Your task to perform on an android device: Do I have any events this weekend? Image 0: 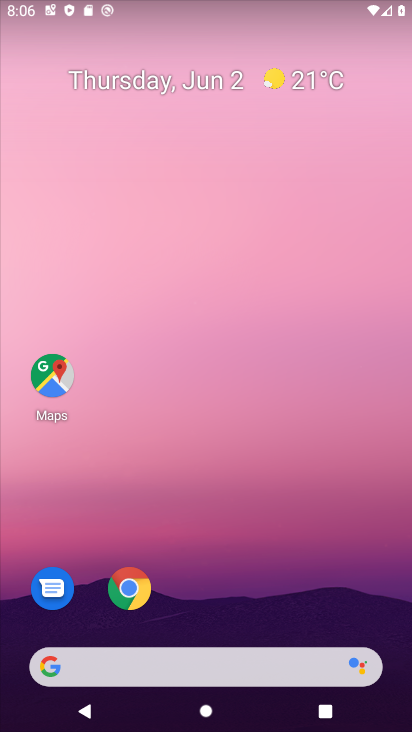
Step 0: drag from (171, 668) to (137, 138)
Your task to perform on an android device: Do I have any events this weekend? Image 1: 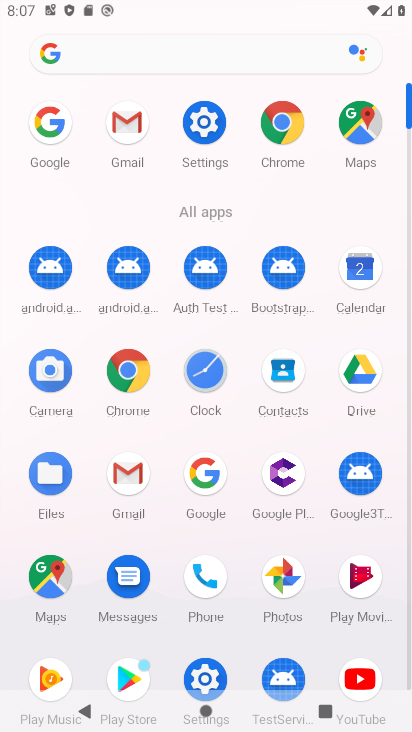
Step 1: click (349, 285)
Your task to perform on an android device: Do I have any events this weekend? Image 2: 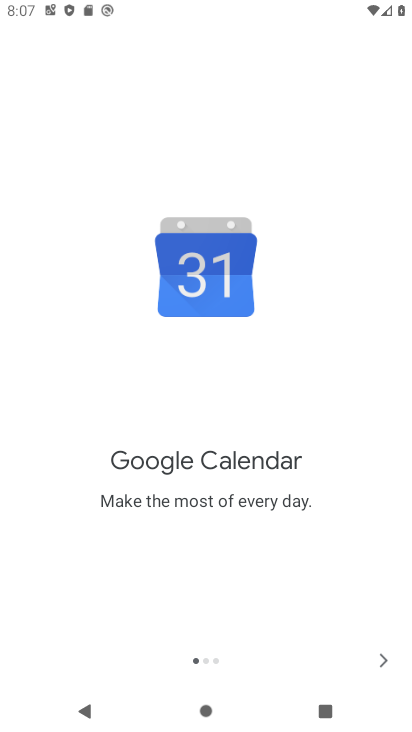
Step 2: click (386, 661)
Your task to perform on an android device: Do I have any events this weekend? Image 3: 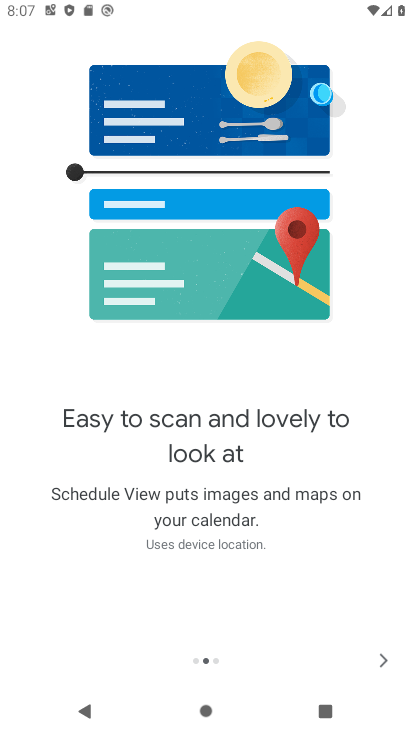
Step 3: click (385, 661)
Your task to perform on an android device: Do I have any events this weekend? Image 4: 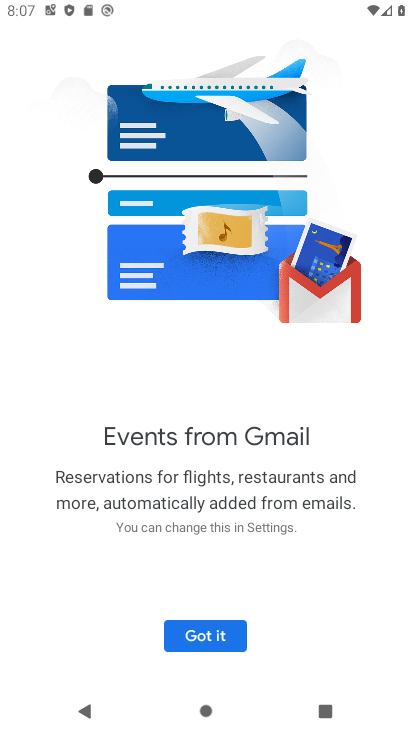
Step 4: click (193, 638)
Your task to perform on an android device: Do I have any events this weekend? Image 5: 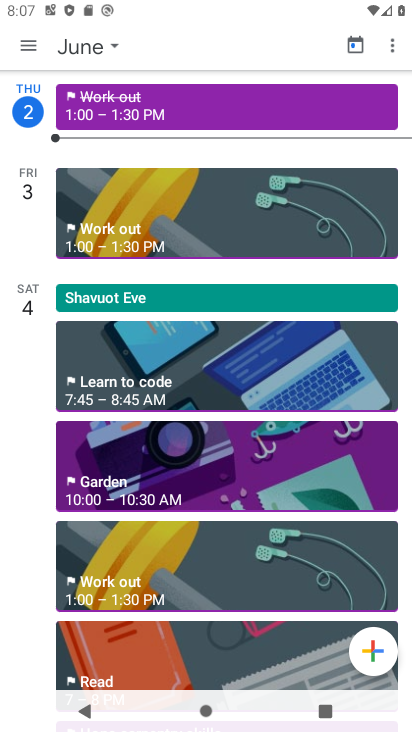
Step 5: click (21, 51)
Your task to perform on an android device: Do I have any events this weekend? Image 6: 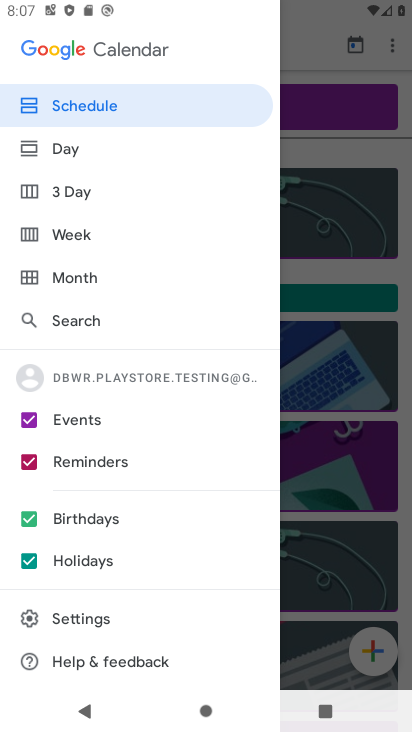
Step 6: click (109, 222)
Your task to perform on an android device: Do I have any events this weekend? Image 7: 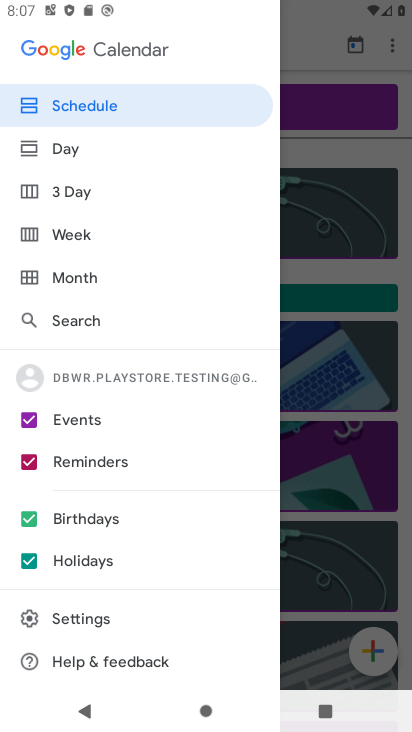
Step 7: click (109, 222)
Your task to perform on an android device: Do I have any events this weekend? Image 8: 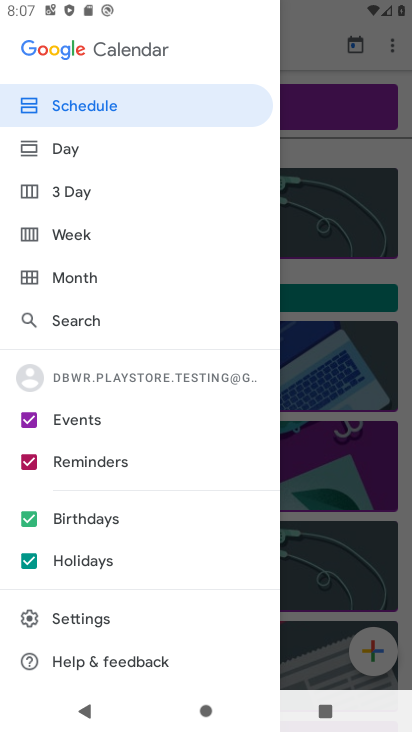
Step 8: click (109, 222)
Your task to perform on an android device: Do I have any events this weekend? Image 9: 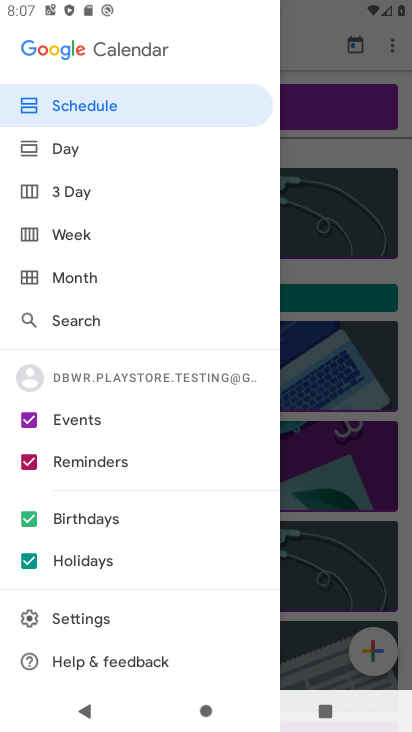
Step 9: click (109, 222)
Your task to perform on an android device: Do I have any events this weekend? Image 10: 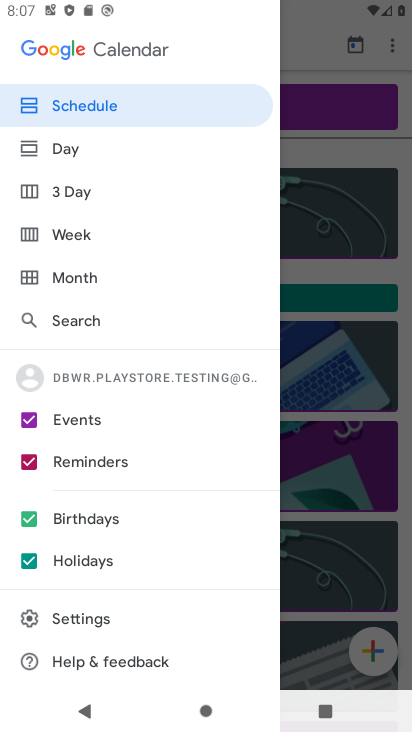
Step 10: click (109, 222)
Your task to perform on an android device: Do I have any events this weekend? Image 11: 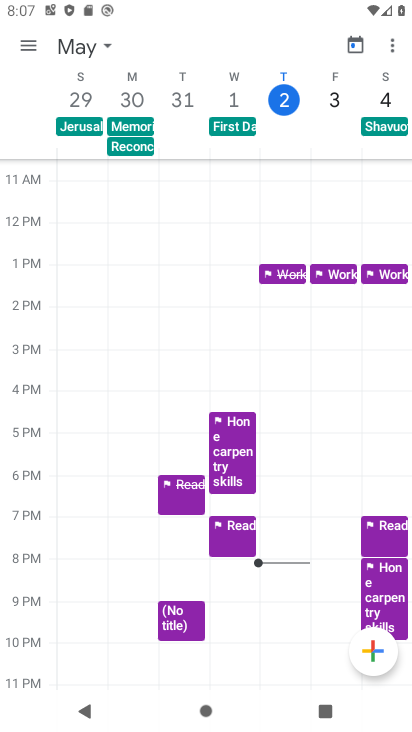
Step 11: task complete